Your task to perform on an android device: move a message to another label in the gmail app Image 0: 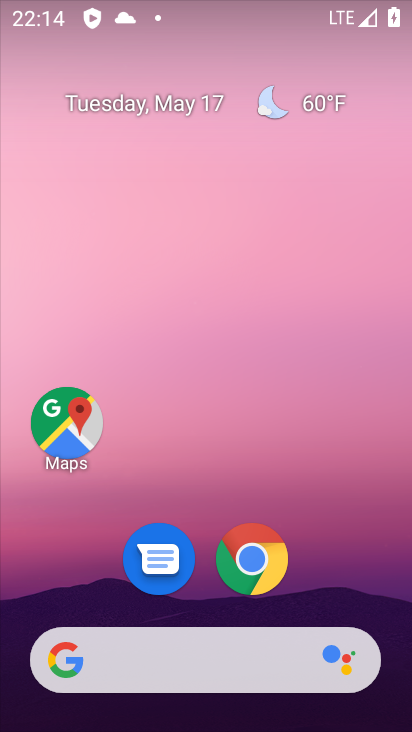
Step 0: drag from (360, 556) to (350, 151)
Your task to perform on an android device: move a message to another label in the gmail app Image 1: 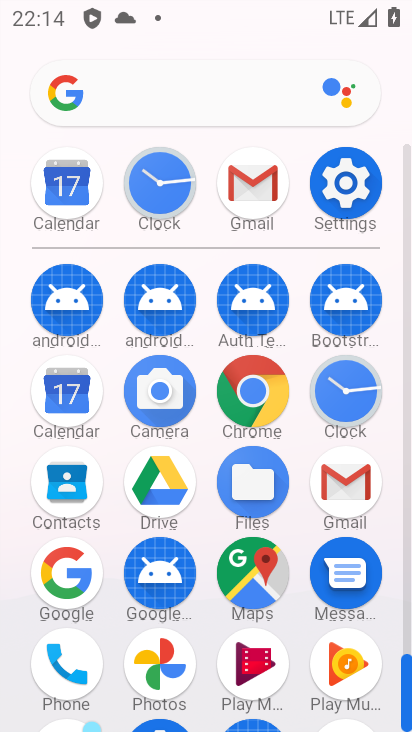
Step 1: click (274, 191)
Your task to perform on an android device: move a message to another label in the gmail app Image 2: 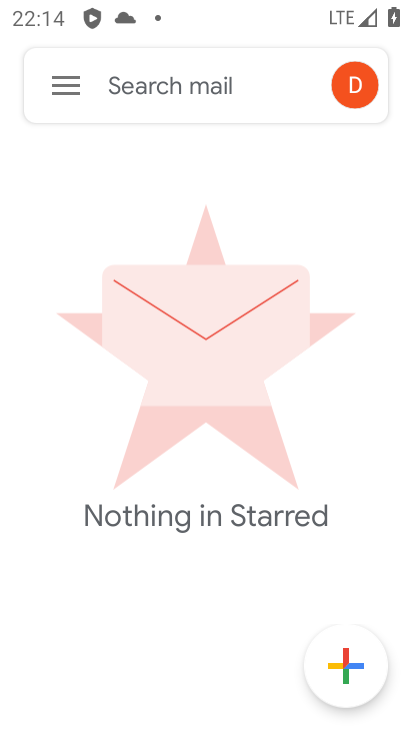
Step 2: click (72, 84)
Your task to perform on an android device: move a message to another label in the gmail app Image 3: 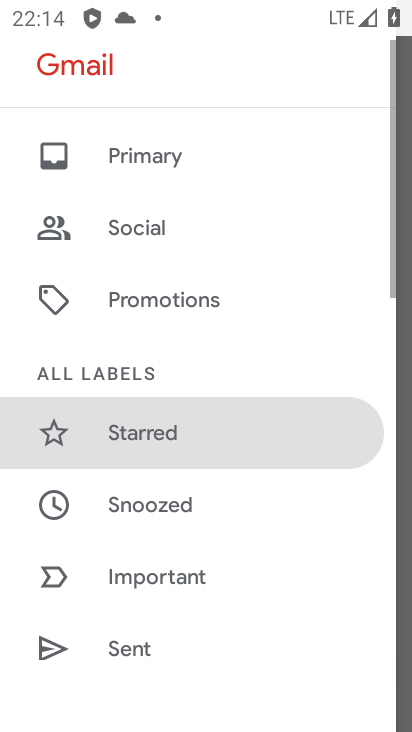
Step 3: drag from (187, 665) to (307, 406)
Your task to perform on an android device: move a message to another label in the gmail app Image 4: 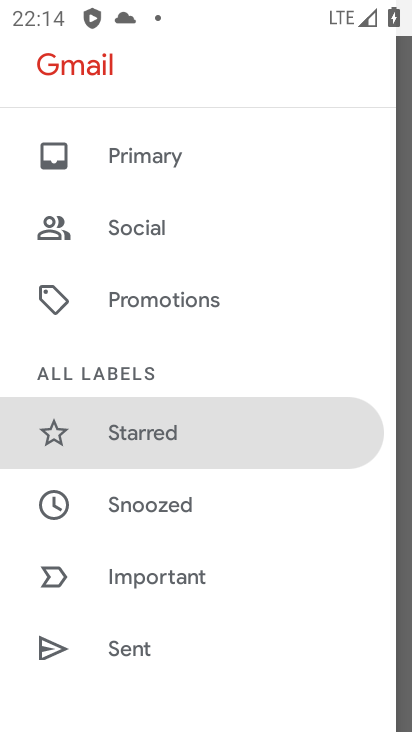
Step 4: drag from (132, 585) to (223, 215)
Your task to perform on an android device: move a message to another label in the gmail app Image 5: 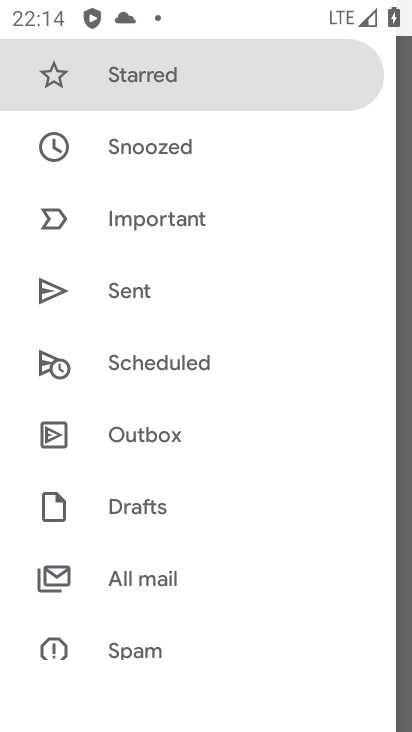
Step 5: click (155, 576)
Your task to perform on an android device: move a message to another label in the gmail app Image 6: 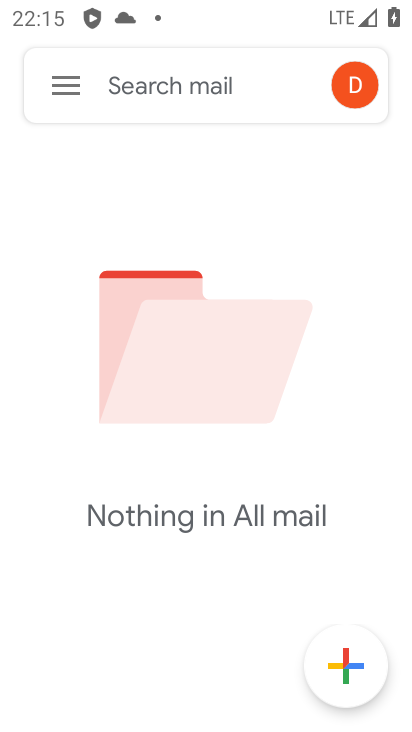
Step 6: task complete